Your task to perform on an android device: set the stopwatch Image 0: 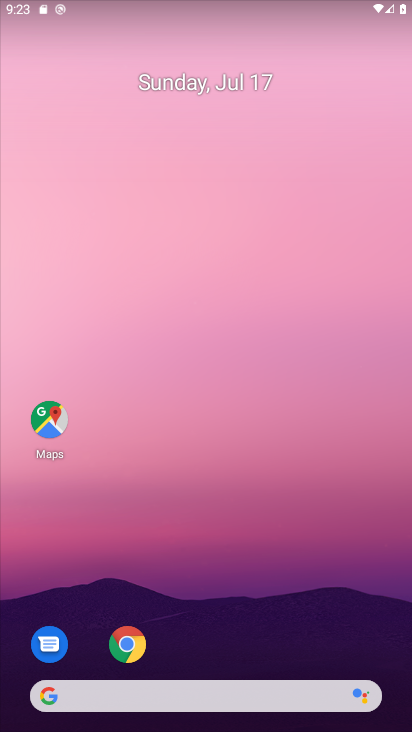
Step 0: drag from (258, 688) to (288, 420)
Your task to perform on an android device: set the stopwatch Image 1: 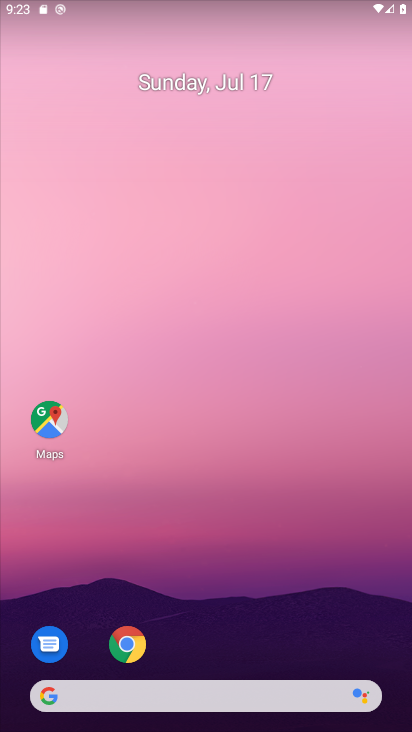
Step 1: drag from (198, 659) to (258, 160)
Your task to perform on an android device: set the stopwatch Image 2: 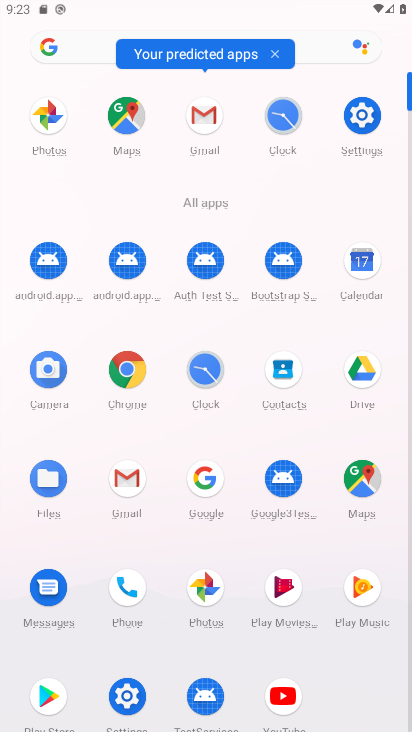
Step 2: click (192, 360)
Your task to perform on an android device: set the stopwatch Image 3: 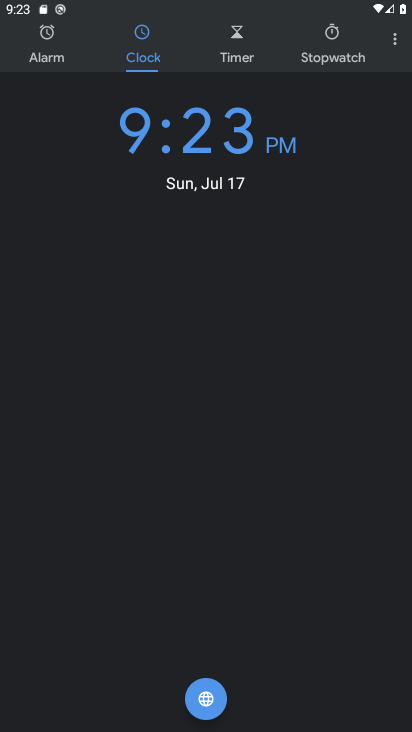
Step 3: click (343, 23)
Your task to perform on an android device: set the stopwatch Image 4: 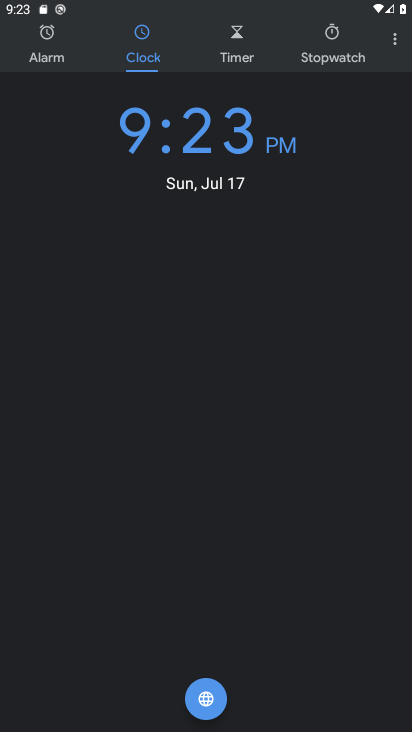
Step 4: click (333, 36)
Your task to perform on an android device: set the stopwatch Image 5: 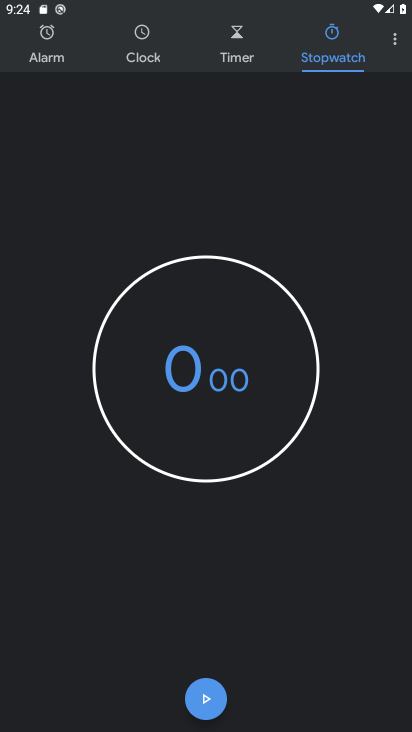
Step 5: click (208, 713)
Your task to perform on an android device: set the stopwatch Image 6: 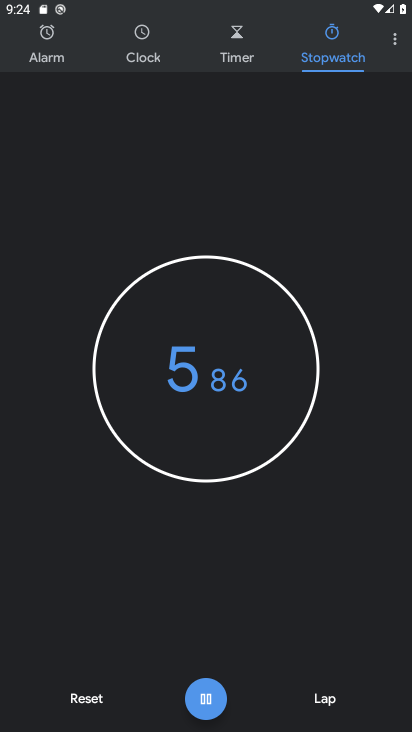
Step 6: task complete